Your task to perform on an android device: open a bookmark in the chrome app Image 0: 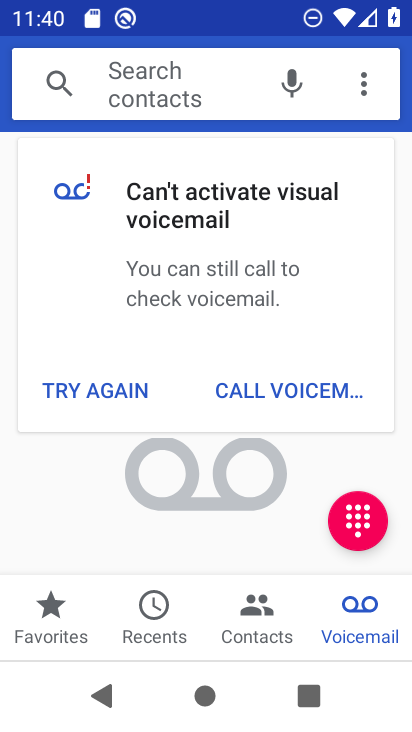
Step 0: press home button
Your task to perform on an android device: open a bookmark in the chrome app Image 1: 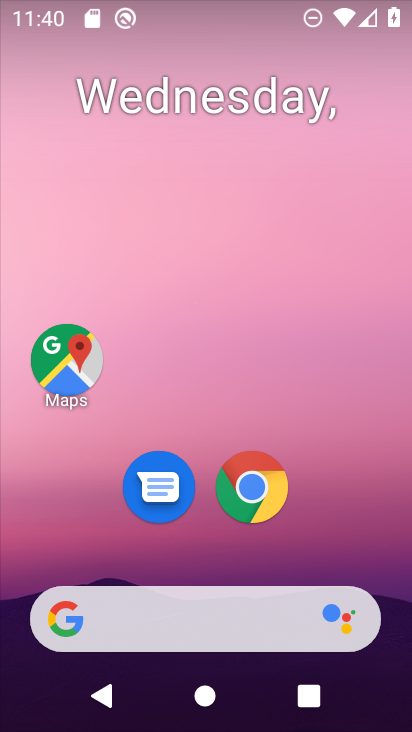
Step 1: click (243, 487)
Your task to perform on an android device: open a bookmark in the chrome app Image 2: 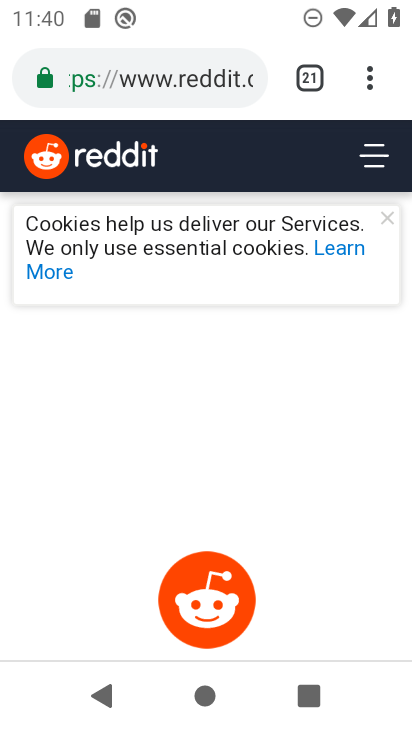
Step 2: click (365, 74)
Your task to perform on an android device: open a bookmark in the chrome app Image 3: 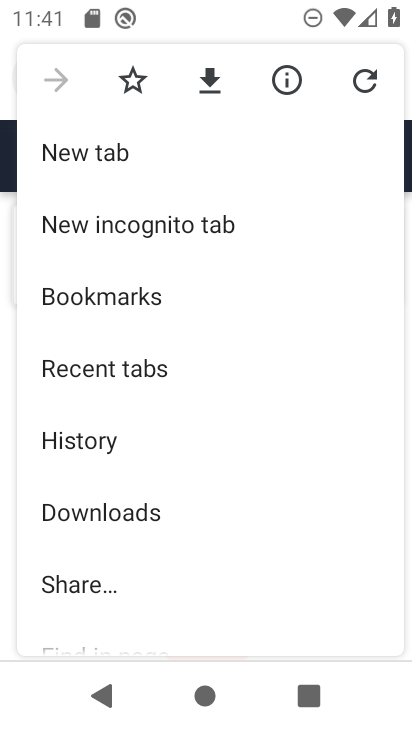
Step 3: click (123, 295)
Your task to perform on an android device: open a bookmark in the chrome app Image 4: 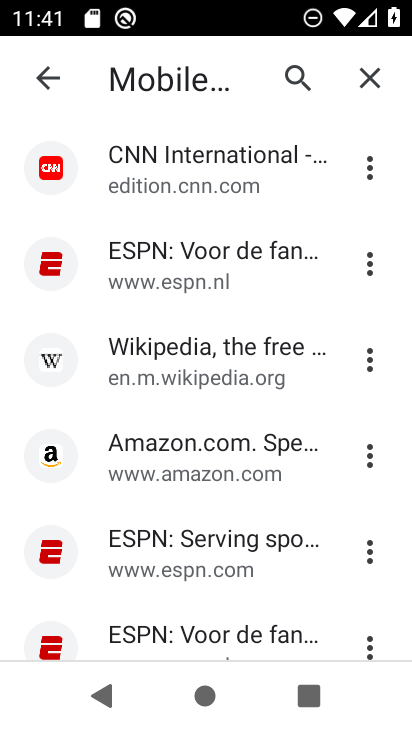
Step 4: task complete